Your task to perform on an android device: When is my next meeting? Image 0: 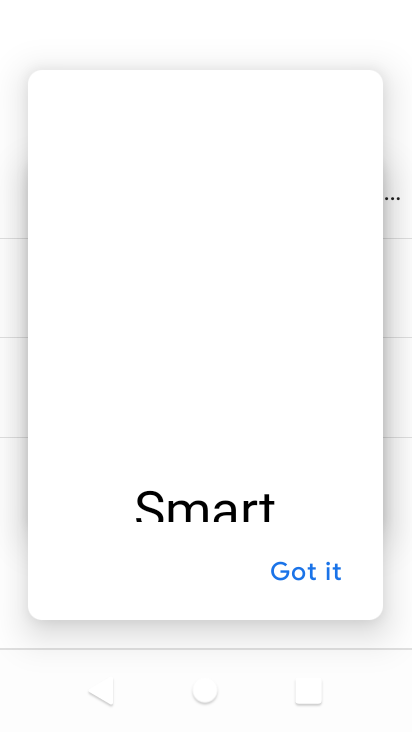
Step 0: press home button
Your task to perform on an android device: When is my next meeting? Image 1: 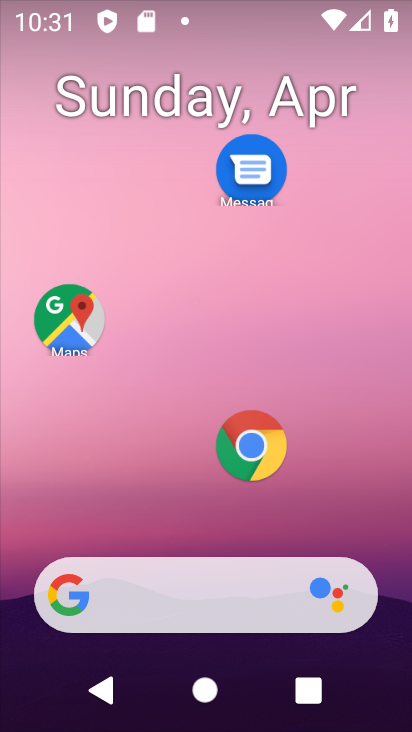
Step 1: drag from (150, 602) to (327, 7)
Your task to perform on an android device: When is my next meeting? Image 2: 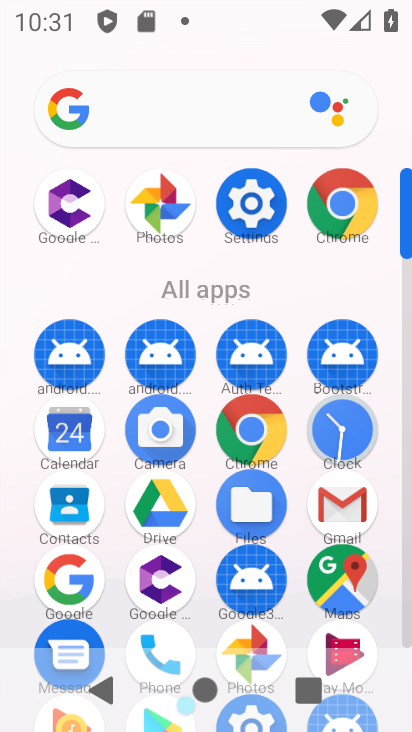
Step 2: click (62, 440)
Your task to perform on an android device: When is my next meeting? Image 3: 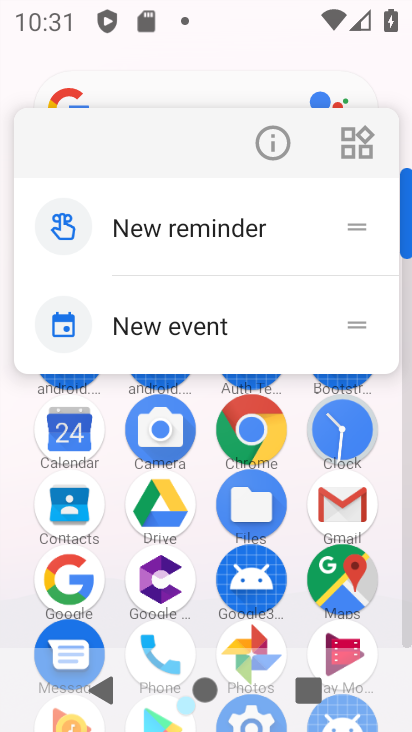
Step 3: click (66, 435)
Your task to perform on an android device: When is my next meeting? Image 4: 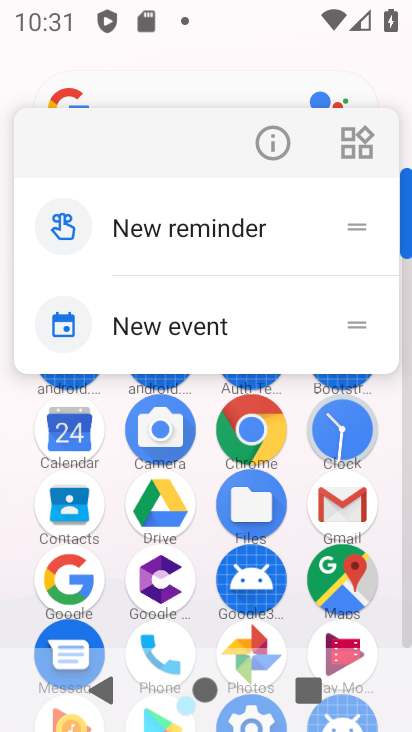
Step 4: click (66, 435)
Your task to perform on an android device: When is my next meeting? Image 5: 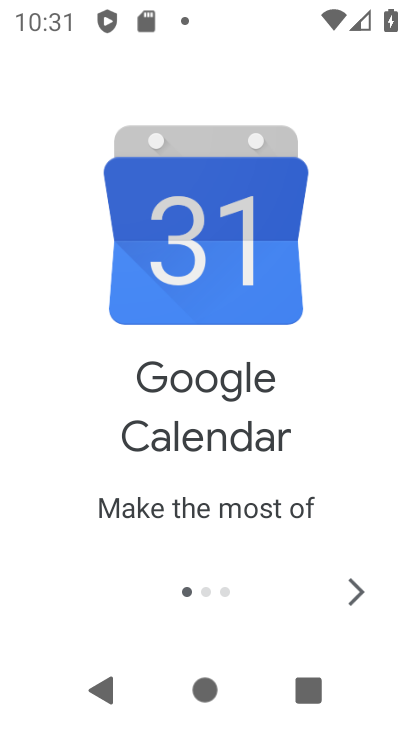
Step 5: click (358, 594)
Your task to perform on an android device: When is my next meeting? Image 6: 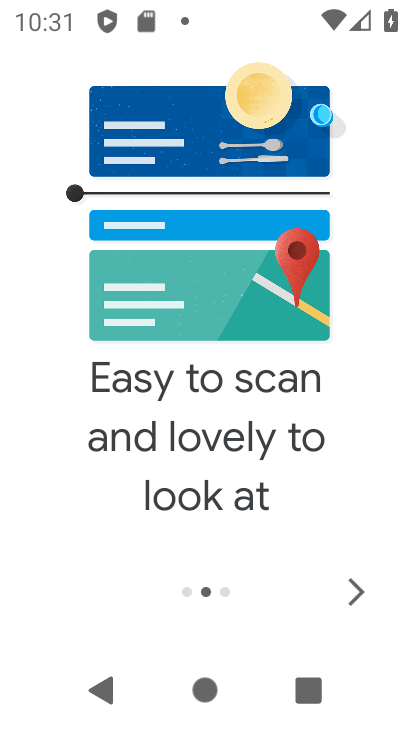
Step 6: click (352, 589)
Your task to perform on an android device: When is my next meeting? Image 7: 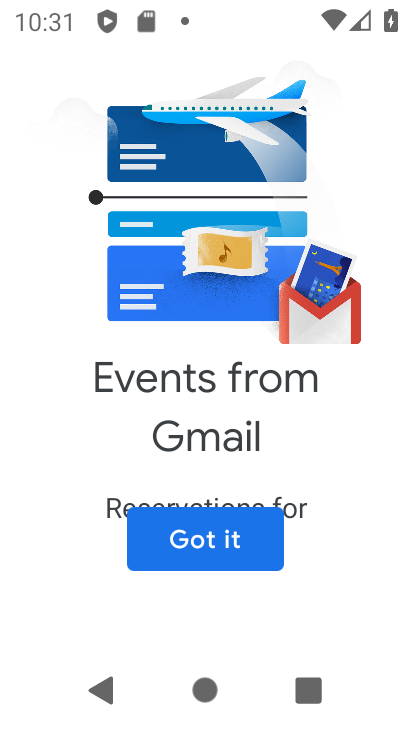
Step 7: click (225, 544)
Your task to perform on an android device: When is my next meeting? Image 8: 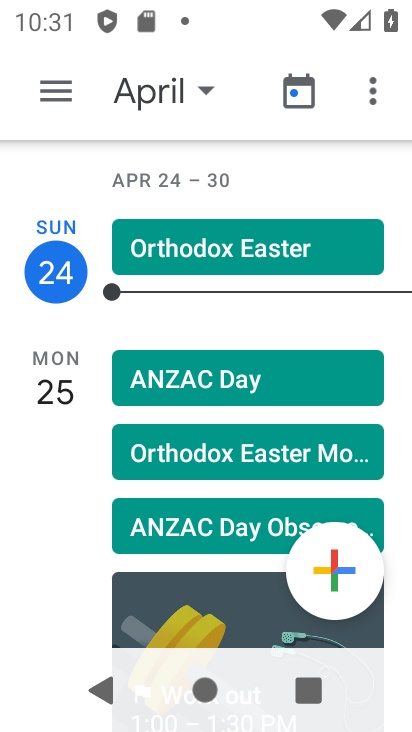
Step 8: click (149, 93)
Your task to perform on an android device: When is my next meeting? Image 9: 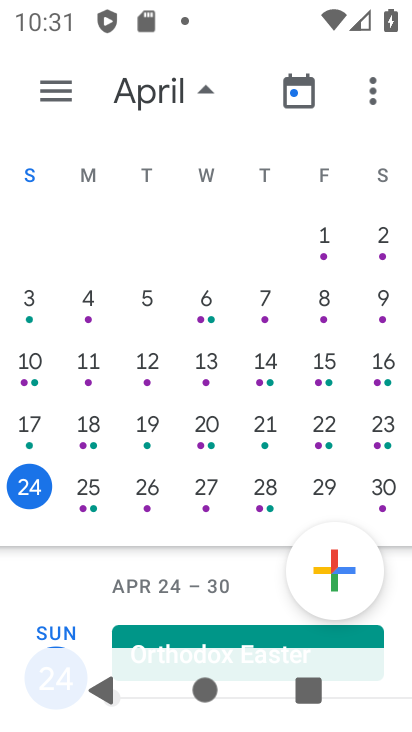
Step 9: click (50, 93)
Your task to perform on an android device: When is my next meeting? Image 10: 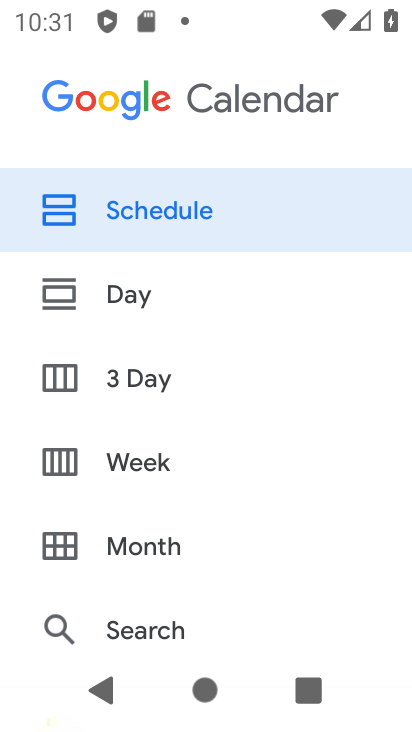
Step 10: click (150, 211)
Your task to perform on an android device: When is my next meeting? Image 11: 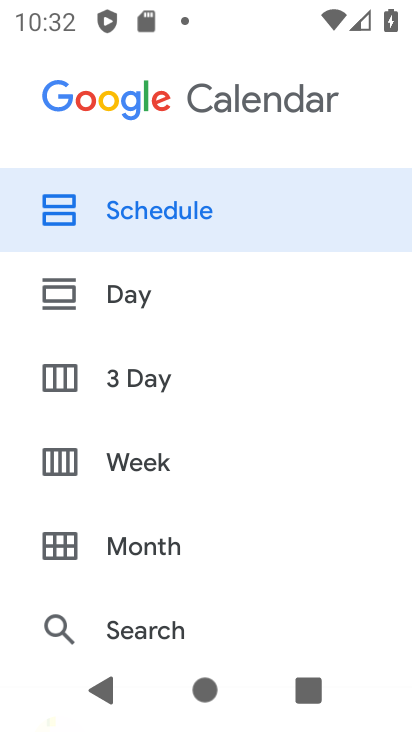
Step 11: click (174, 218)
Your task to perform on an android device: When is my next meeting? Image 12: 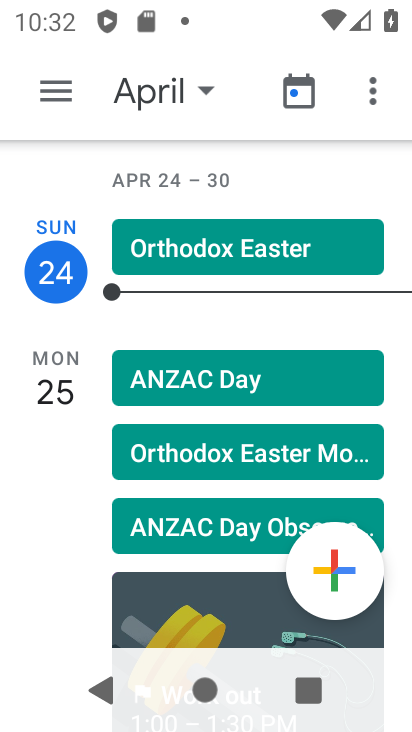
Step 12: drag from (180, 484) to (348, 145)
Your task to perform on an android device: When is my next meeting? Image 13: 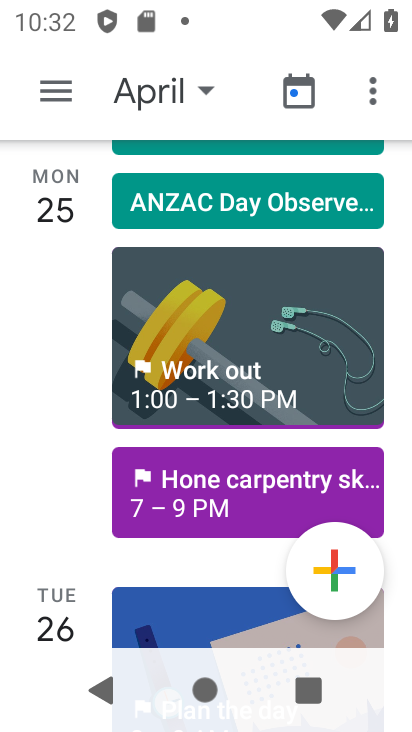
Step 13: drag from (134, 566) to (285, 318)
Your task to perform on an android device: When is my next meeting? Image 14: 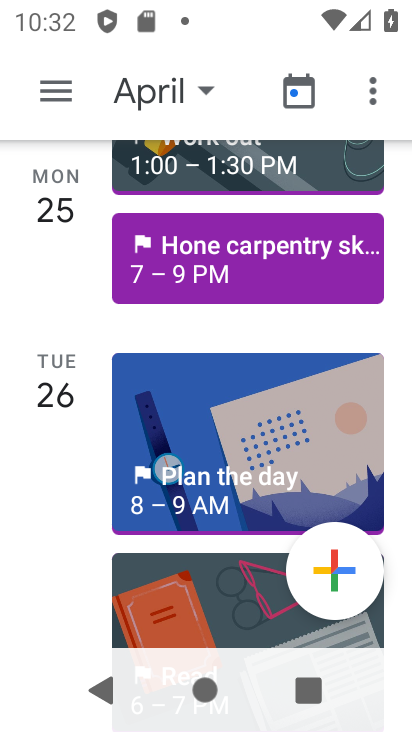
Step 14: click (240, 244)
Your task to perform on an android device: When is my next meeting? Image 15: 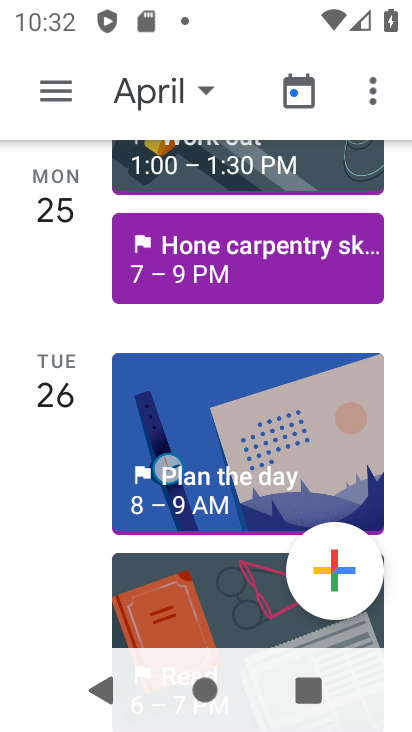
Step 15: click (260, 249)
Your task to perform on an android device: When is my next meeting? Image 16: 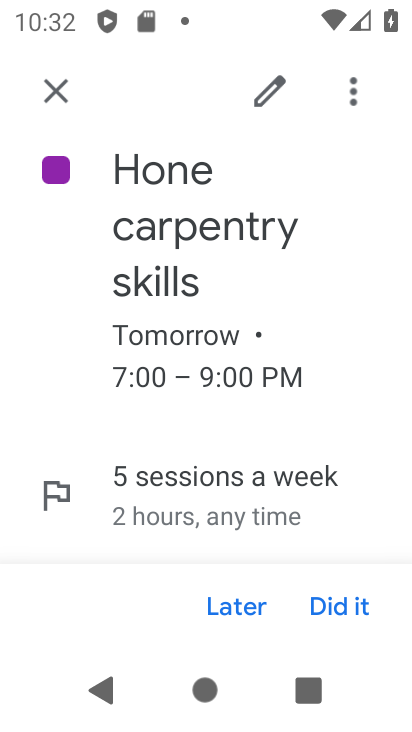
Step 16: task complete